Your task to perform on an android device: change the clock display to digital Image 0: 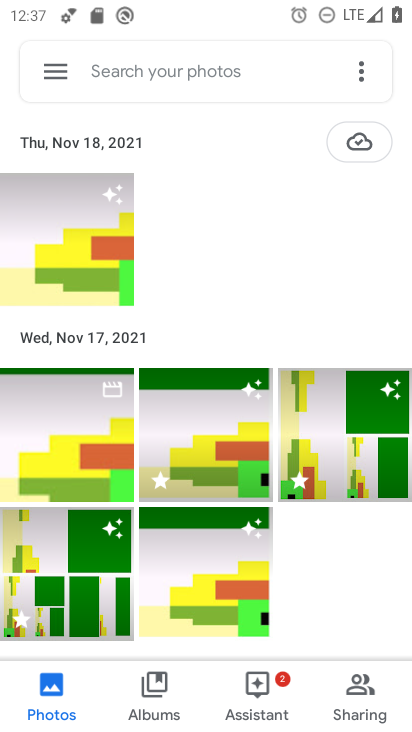
Step 0: press home button
Your task to perform on an android device: change the clock display to digital Image 1: 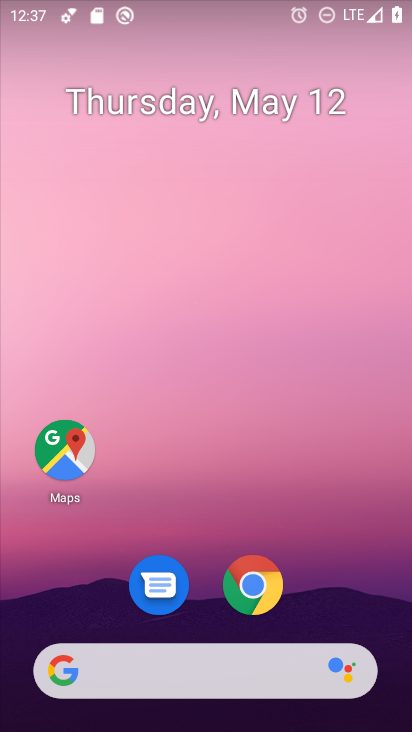
Step 1: drag from (232, 498) to (271, 27)
Your task to perform on an android device: change the clock display to digital Image 2: 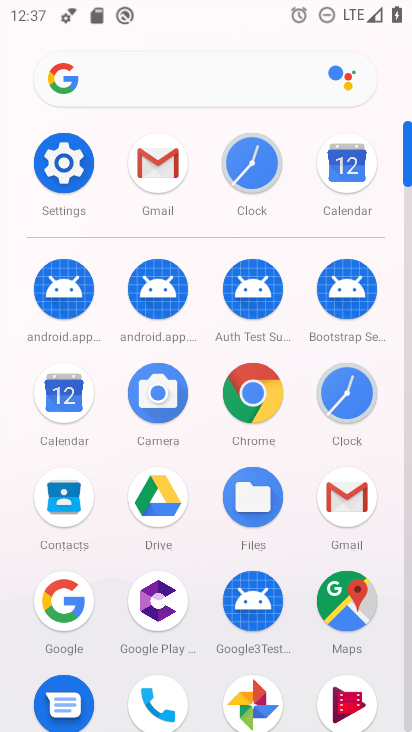
Step 2: click (246, 165)
Your task to perform on an android device: change the clock display to digital Image 3: 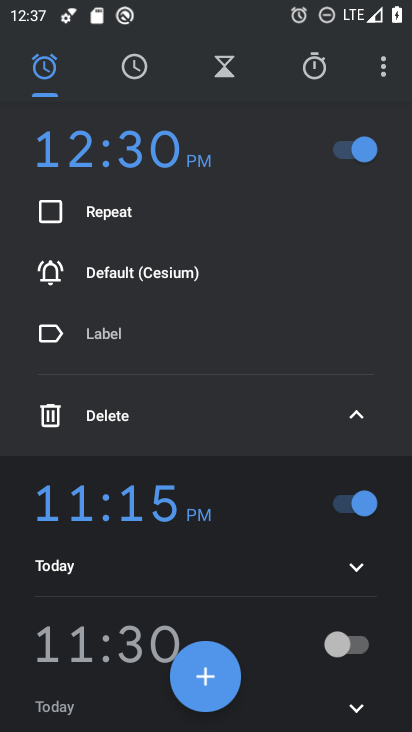
Step 3: click (132, 71)
Your task to perform on an android device: change the clock display to digital Image 4: 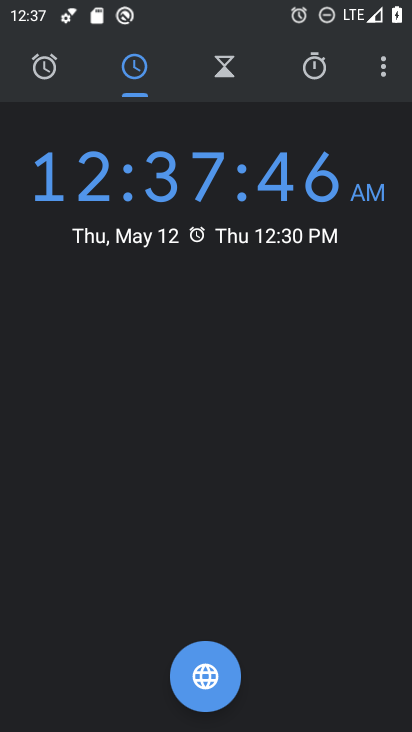
Step 4: task complete